Your task to perform on an android device: turn off smart reply in the gmail app Image 0: 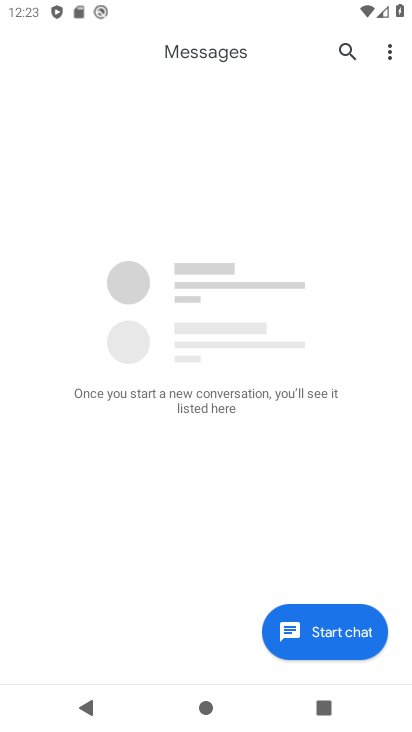
Step 0: press home button
Your task to perform on an android device: turn off smart reply in the gmail app Image 1: 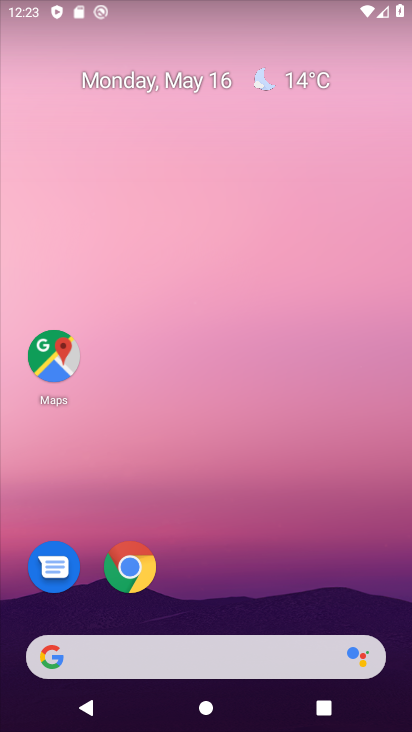
Step 1: click (183, 42)
Your task to perform on an android device: turn off smart reply in the gmail app Image 2: 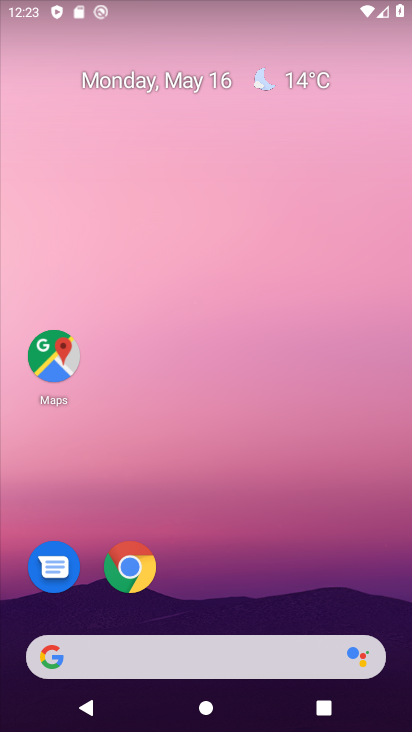
Step 2: drag from (264, 546) to (194, 0)
Your task to perform on an android device: turn off smart reply in the gmail app Image 3: 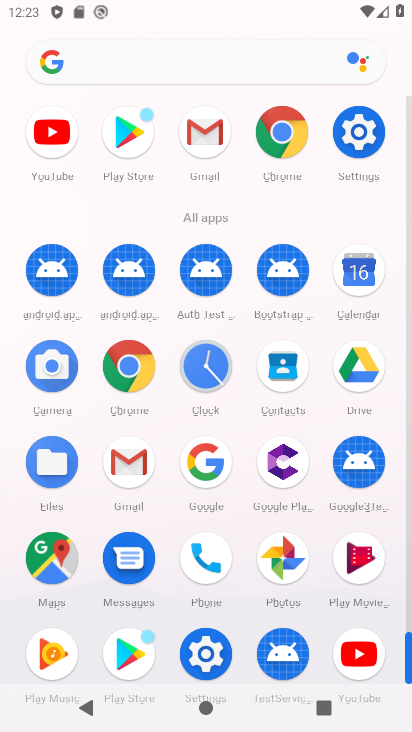
Step 3: click (204, 146)
Your task to perform on an android device: turn off smart reply in the gmail app Image 4: 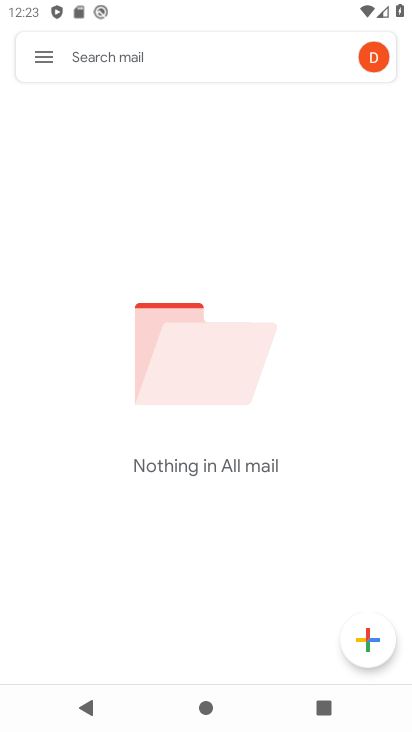
Step 4: click (45, 59)
Your task to perform on an android device: turn off smart reply in the gmail app Image 5: 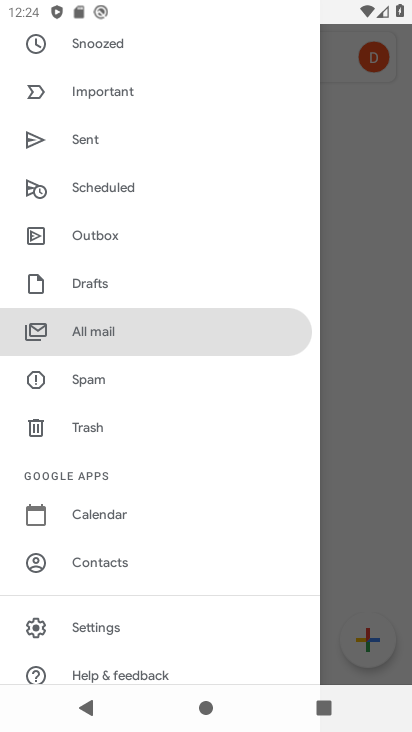
Step 5: click (100, 623)
Your task to perform on an android device: turn off smart reply in the gmail app Image 6: 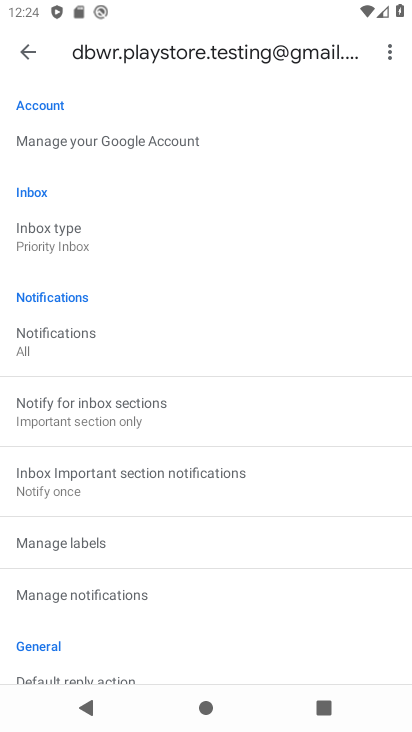
Step 6: drag from (200, 557) to (137, 234)
Your task to perform on an android device: turn off smart reply in the gmail app Image 7: 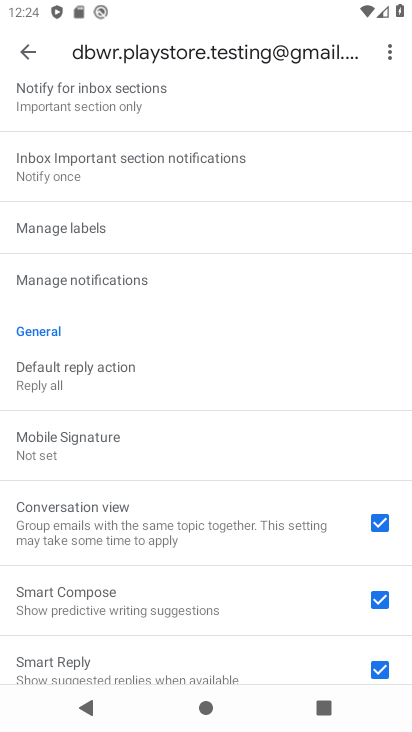
Step 7: drag from (256, 575) to (231, 312)
Your task to perform on an android device: turn off smart reply in the gmail app Image 8: 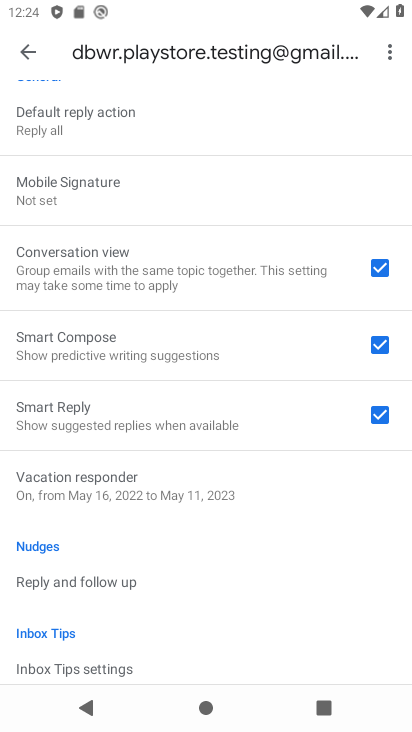
Step 8: click (381, 420)
Your task to perform on an android device: turn off smart reply in the gmail app Image 9: 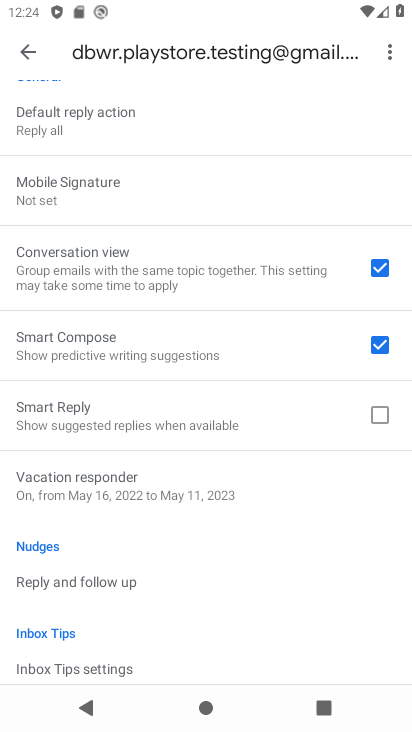
Step 9: task complete